Your task to perform on an android device: Turn off the flashlight Image 0: 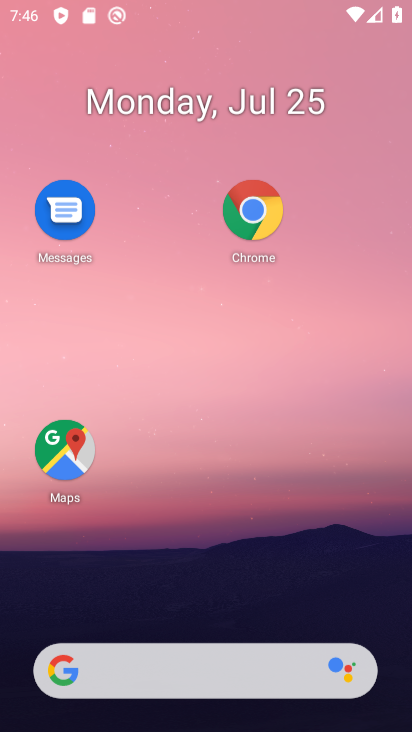
Step 0: press back button
Your task to perform on an android device: Turn off the flashlight Image 1: 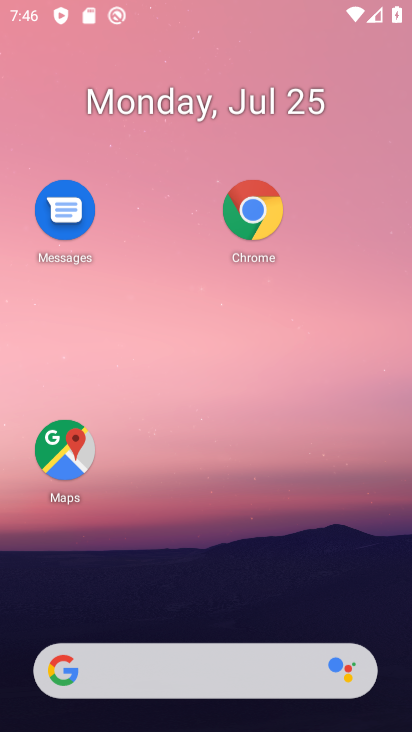
Step 1: drag from (192, 104) to (188, 22)
Your task to perform on an android device: Turn off the flashlight Image 2: 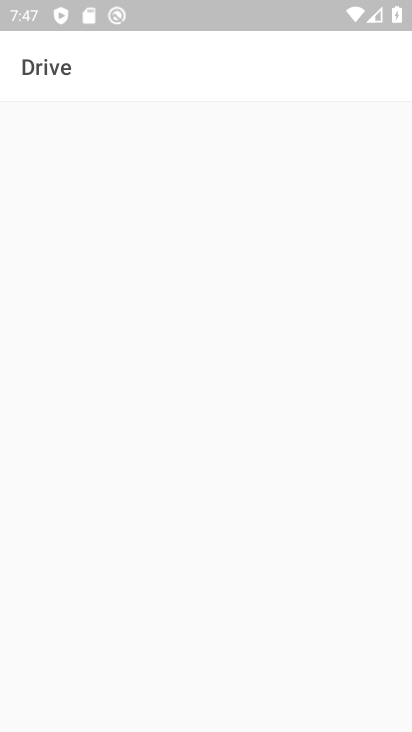
Step 2: press home button
Your task to perform on an android device: Turn off the flashlight Image 3: 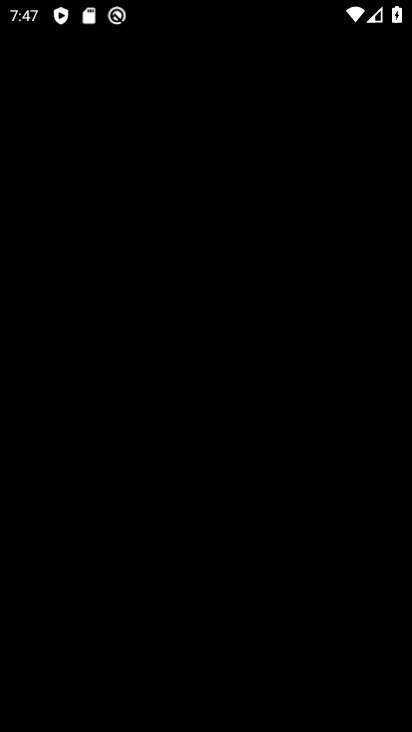
Step 3: drag from (188, 22) to (319, 701)
Your task to perform on an android device: Turn off the flashlight Image 4: 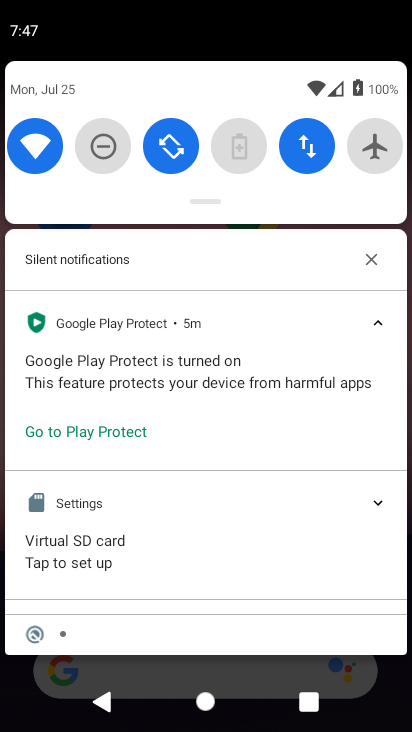
Step 4: press home button
Your task to perform on an android device: Turn off the flashlight Image 5: 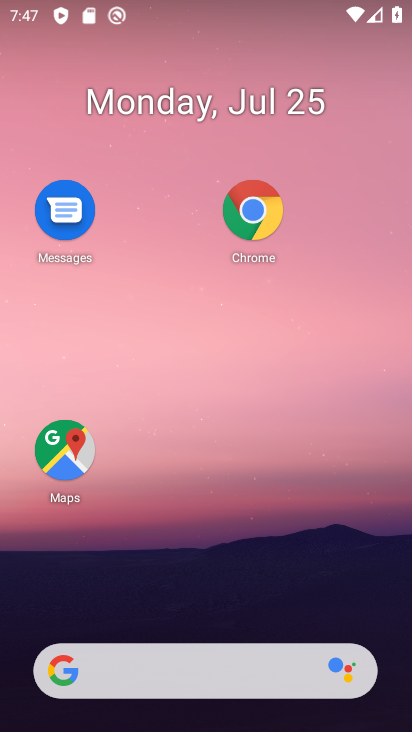
Step 5: drag from (186, 631) to (150, 124)
Your task to perform on an android device: Turn off the flashlight Image 6: 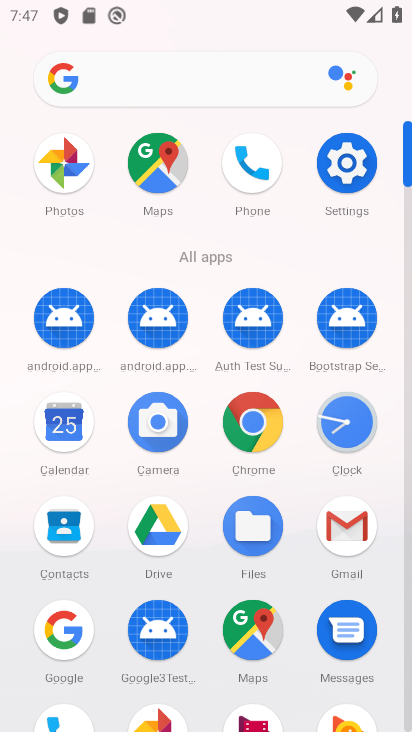
Step 6: click (355, 163)
Your task to perform on an android device: Turn off the flashlight Image 7: 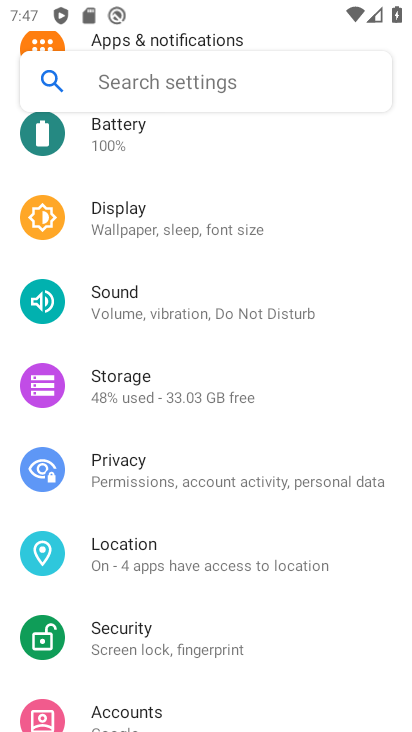
Step 7: task complete